Your task to perform on an android device: show emergency info Image 0: 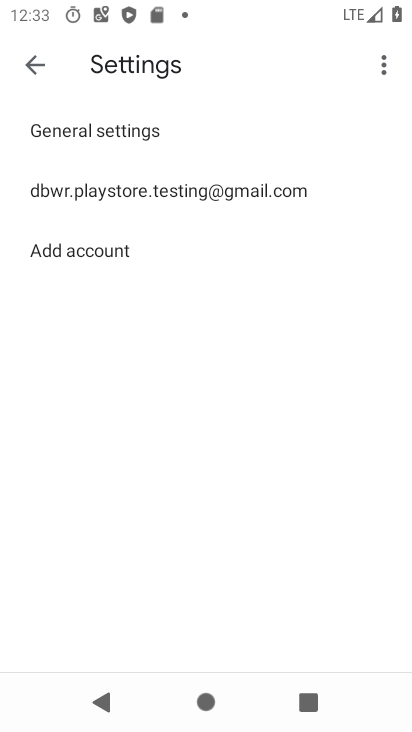
Step 0: press home button
Your task to perform on an android device: show emergency info Image 1: 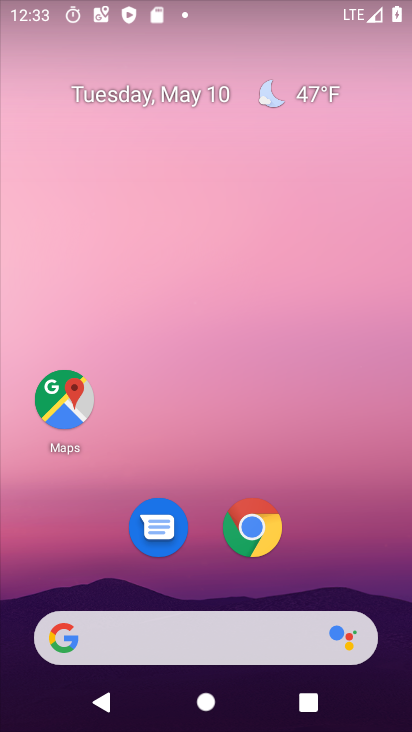
Step 1: drag from (368, 575) to (345, 100)
Your task to perform on an android device: show emergency info Image 2: 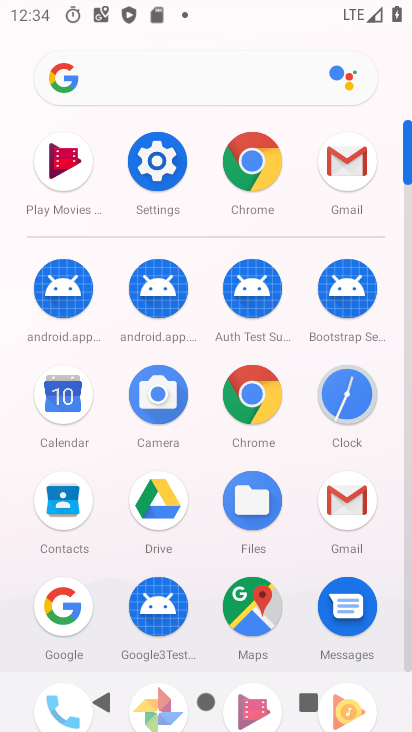
Step 2: click (173, 170)
Your task to perform on an android device: show emergency info Image 3: 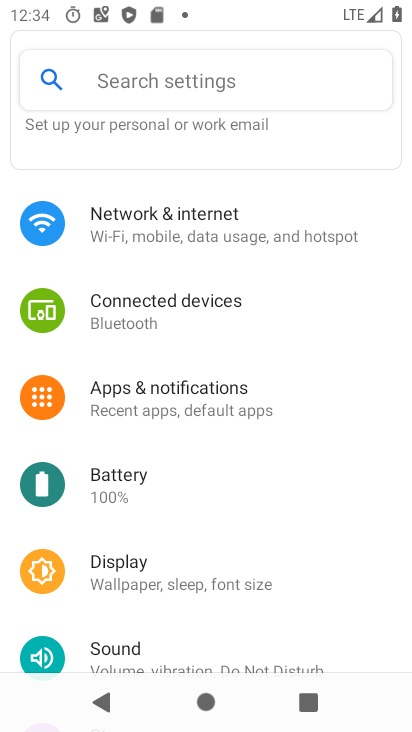
Step 3: drag from (266, 557) to (283, 252)
Your task to perform on an android device: show emergency info Image 4: 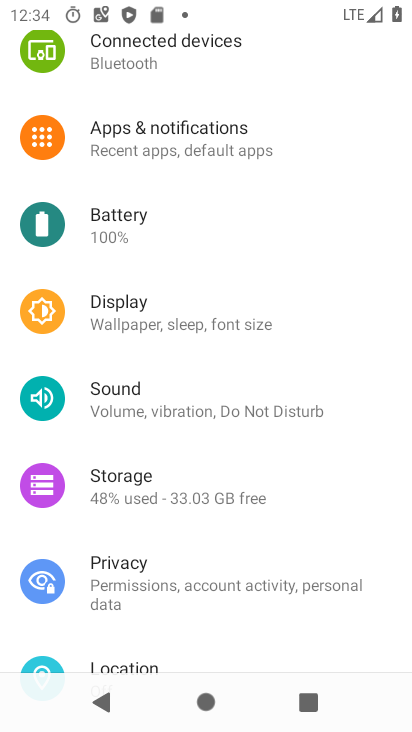
Step 4: drag from (285, 548) to (308, 263)
Your task to perform on an android device: show emergency info Image 5: 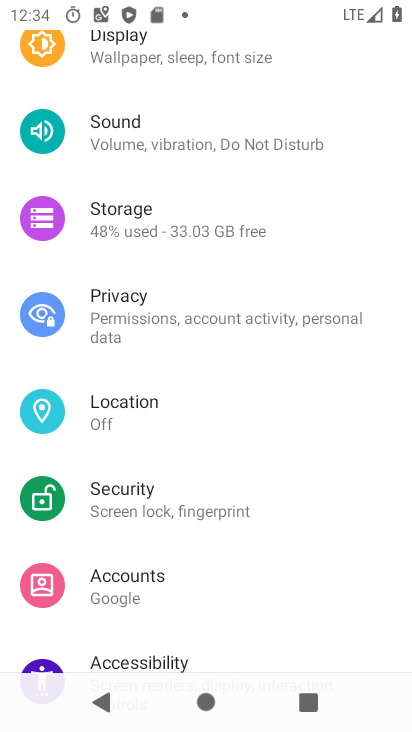
Step 5: drag from (278, 565) to (267, 252)
Your task to perform on an android device: show emergency info Image 6: 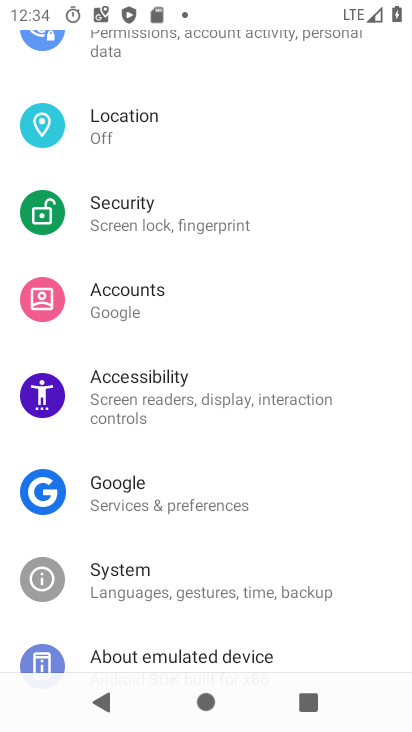
Step 6: drag from (278, 630) to (313, 212)
Your task to perform on an android device: show emergency info Image 7: 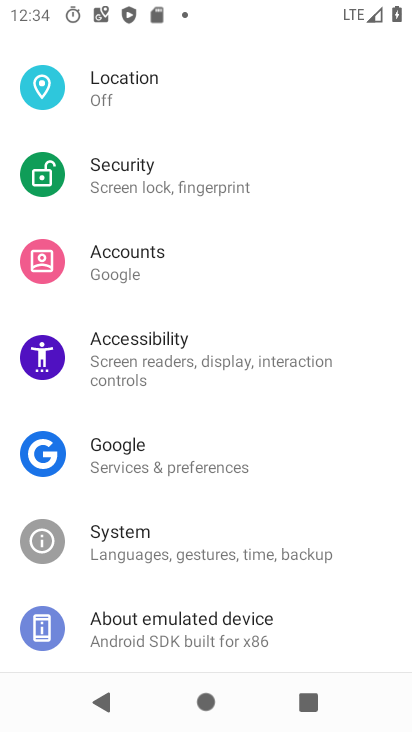
Step 7: click (207, 608)
Your task to perform on an android device: show emergency info Image 8: 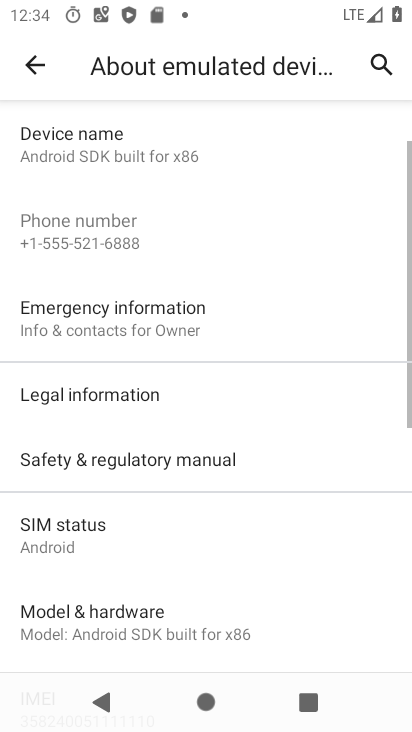
Step 8: click (147, 318)
Your task to perform on an android device: show emergency info Image 9: 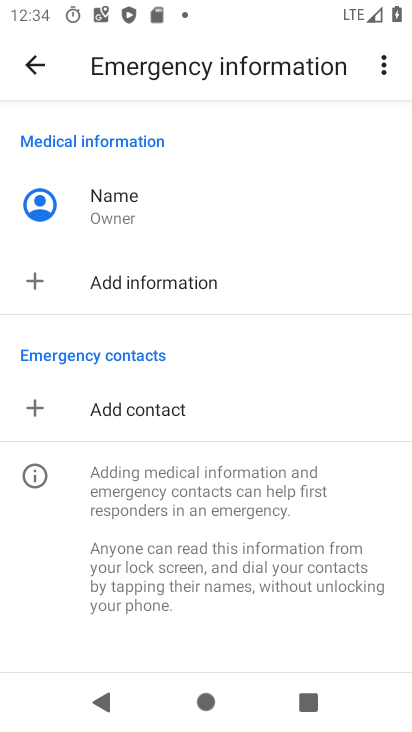
Step 9: task complete